Your task to perform on an android device: empty trash in google photos Image 0: 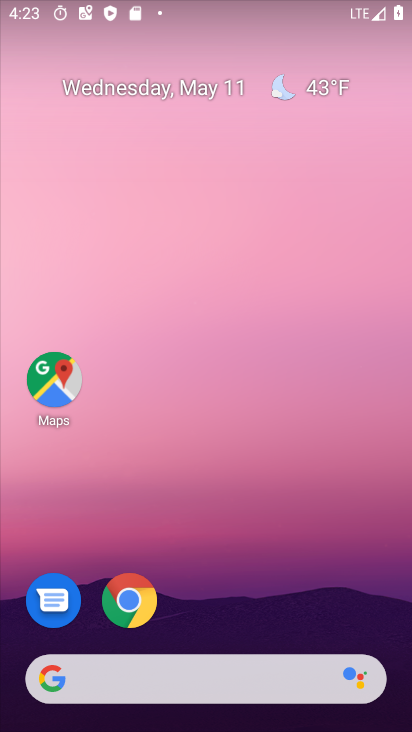
Step 0: drag from (300, 612) to (278, 19)
Your task to perform on an android device: empty trash in google photos Image 1: 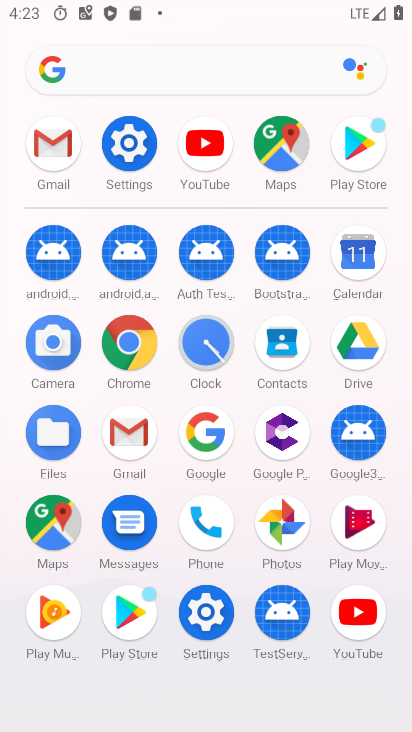
Step 1: click (281, 524)
Your task to perform on an android device: empty trash in google photos Image 2: 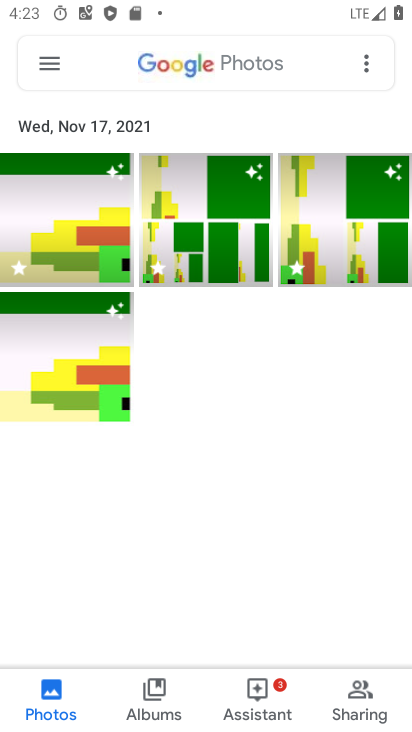
Step 2: click (37, 71)
Your task to perform on an android device: empty trash in google photos Image 3: 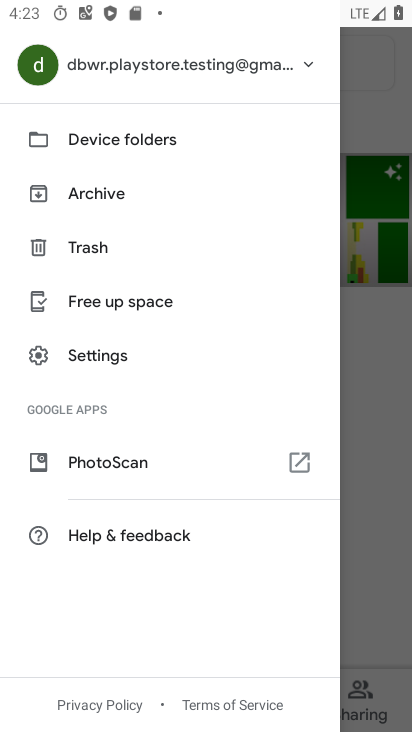
Step 3: click (76, 245)
Your task to perform on an android device: empty trash in google photos Image 4: 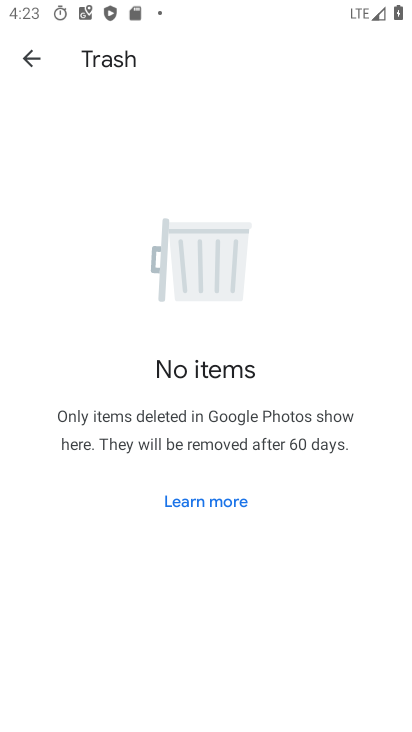
Step 4: task complete